Your task to perform on an android device: show emergency info Image 0: 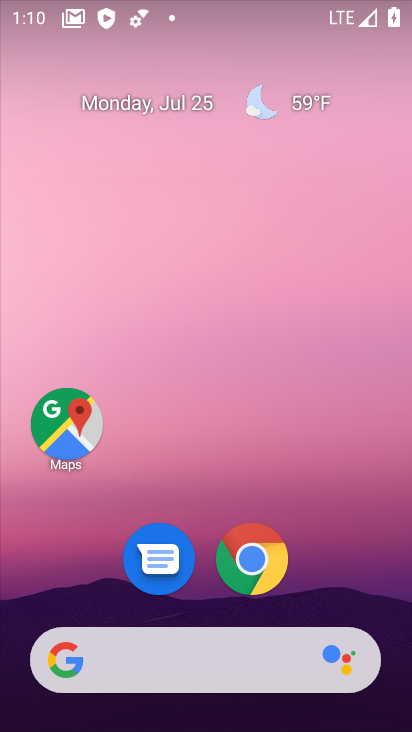
Step 0: drag from (55, 545) to (217, 19)
Your task to perform on an android device: show emergency info Image 1: 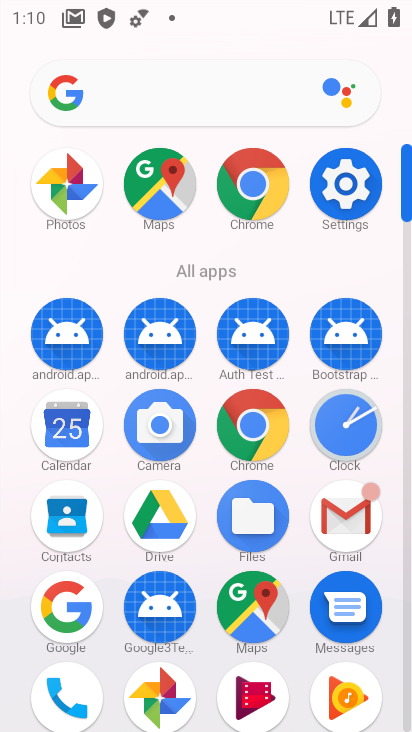
Step 1: click (350, 169)
Your task to perform on an android device: show emergency info Image 2: 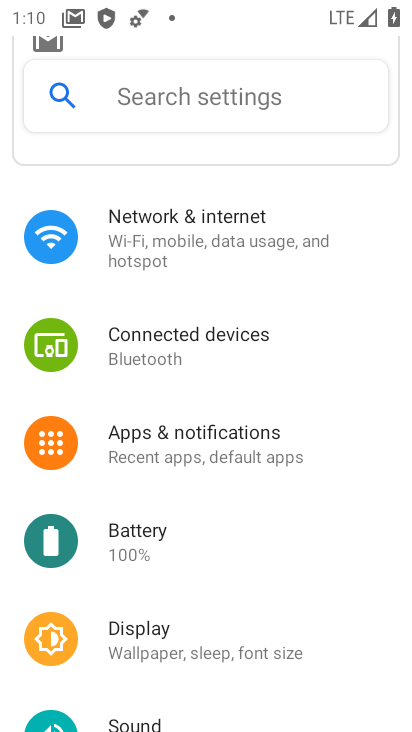
Step 2: drag from (199, 632) to (335, 35)
Your task to perform on an android device: show emergency info Image 3: 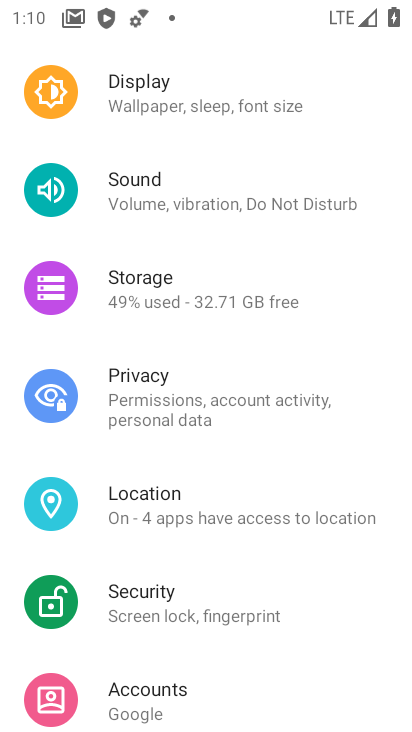
Step 3: drag from (199, 653) to (302, 36)
Your task to perform on an android device: show emergency info Image 4: 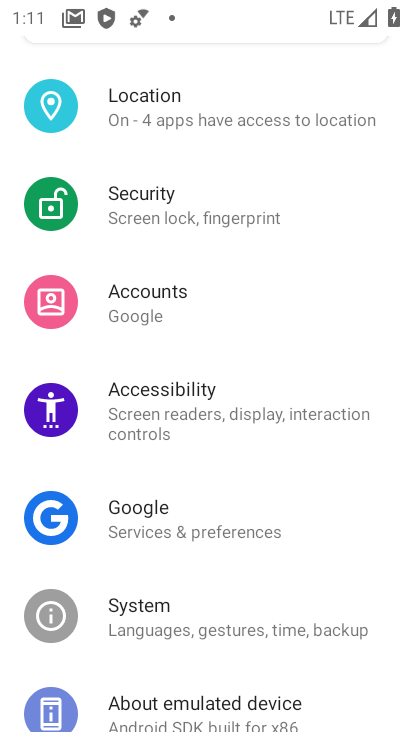
Step 4: drag from (174, 678) to (292, 40)
Your task to perform on an android device: show emergency info Image 5: 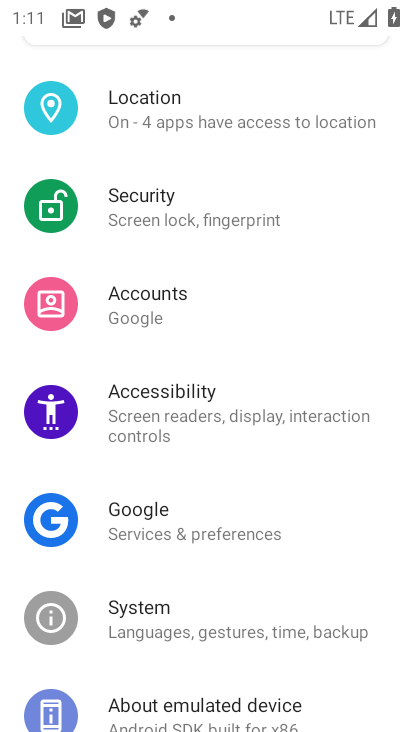
Step 5: click (145, 705)
Your task to perform on an android device: show emergency info Image 6: 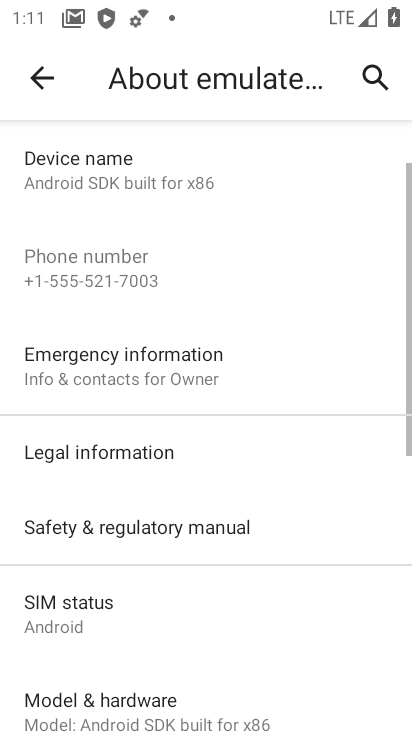
Step 6: click (133, 377)
Your task to perform on an android device: show emergency info Image 7: 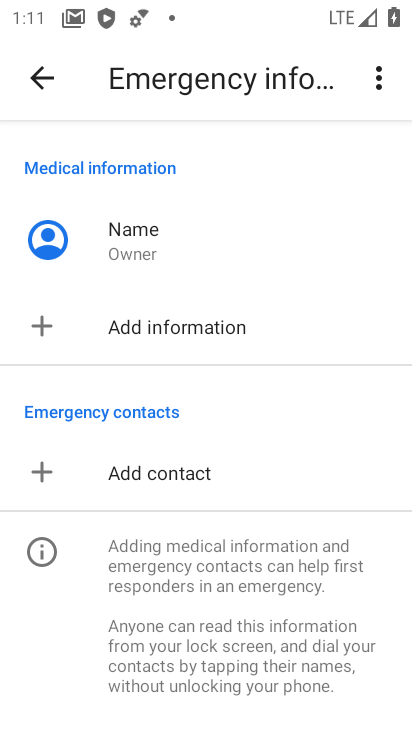
Step 7: task complete